Your task to perform on an android device: Clear the cart on newegg.com. Add apple airpods to the cart on newegg.com Image 0: 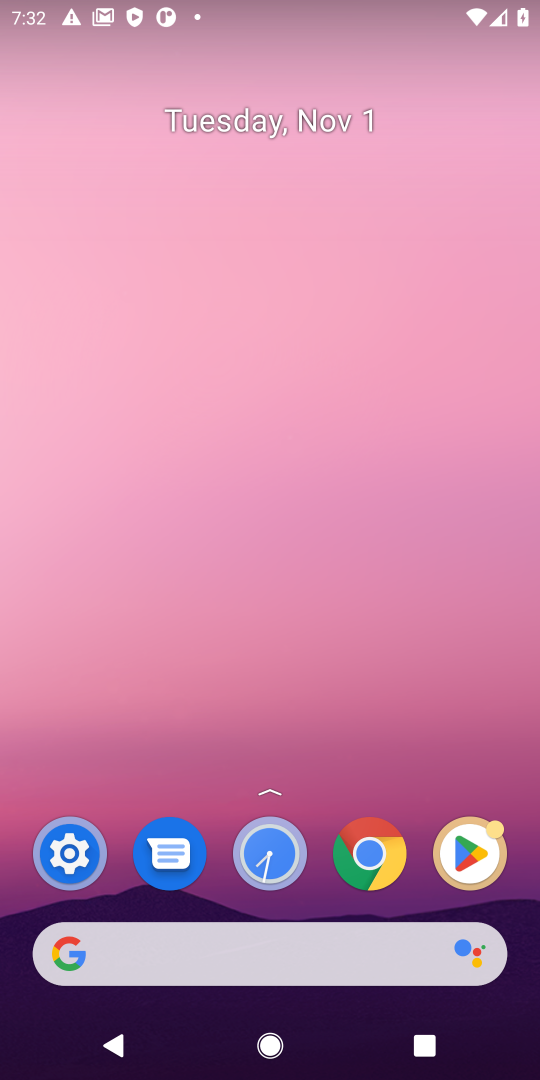
Step 0: click (338, 938)
Your task to perform on an android device: Clear the cart on newegg.com. Add apple airpods to the cart on newegg.com Image 1: 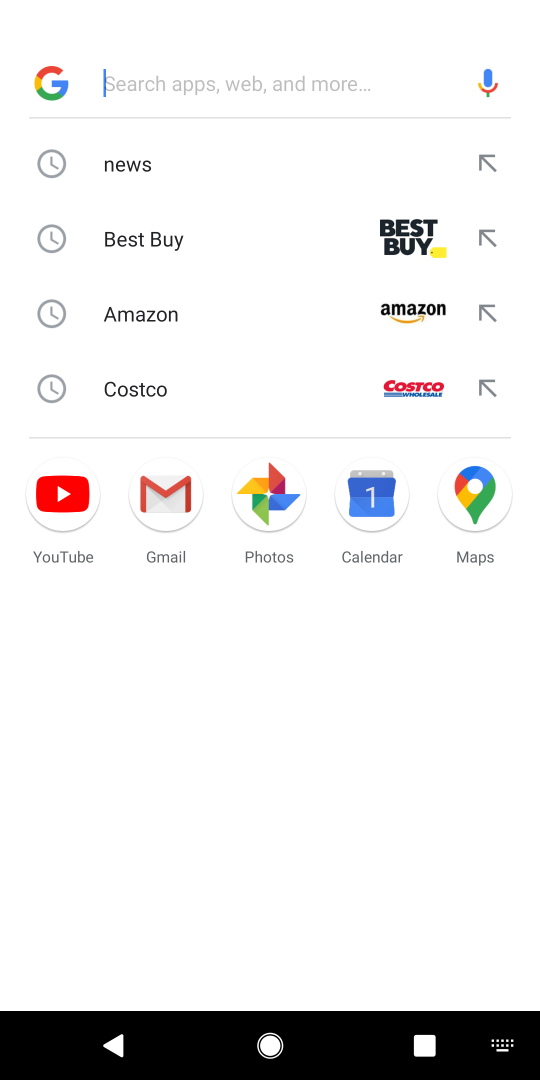
Step 1: type "newegg.com"
Your task to perform on an android device: Clear the cart on newegg.com. Add apple airpods to the cart on newegg.com Image 2: 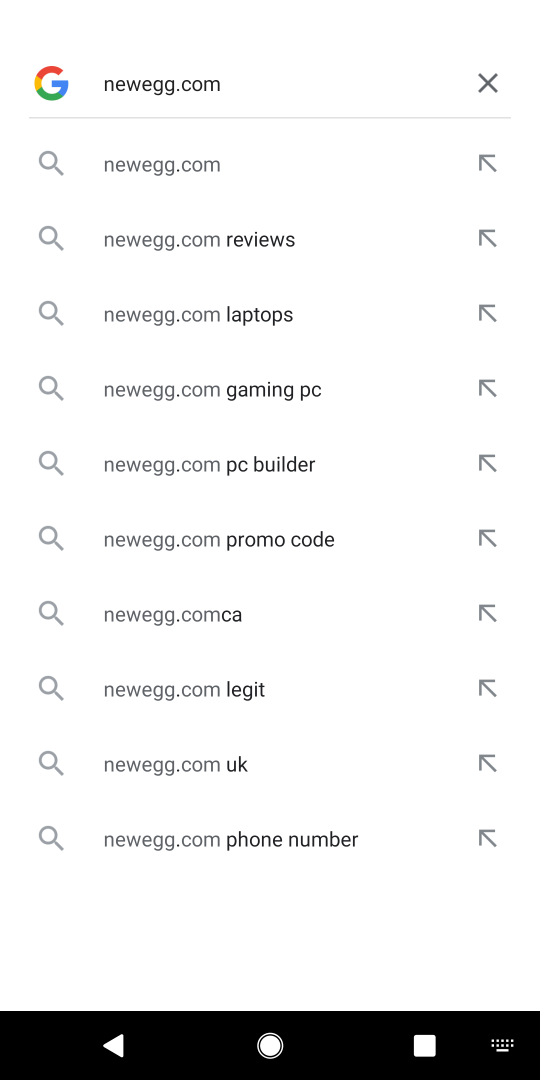
Step 2: click (254, 157)
Your task to perform on an android device: Clear the cart on newegg.com. Add apple airpods to the cart on newegg.com Image 3: 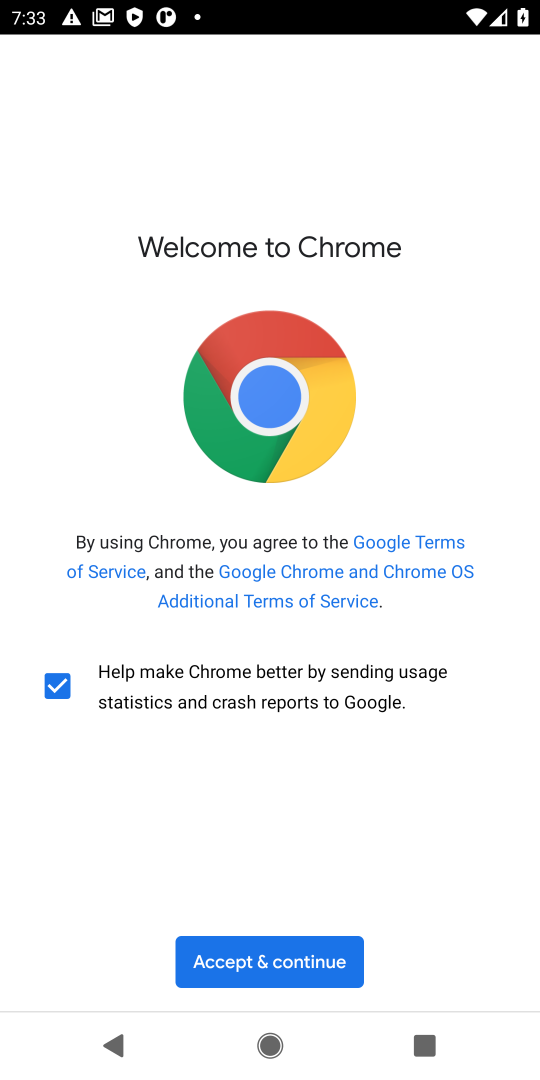
Step 3: click (310, 948)
Your task to perform on an android device: Clear the cart on newegg.com. Add apple airpods to the cart on newegg.com Image 4: 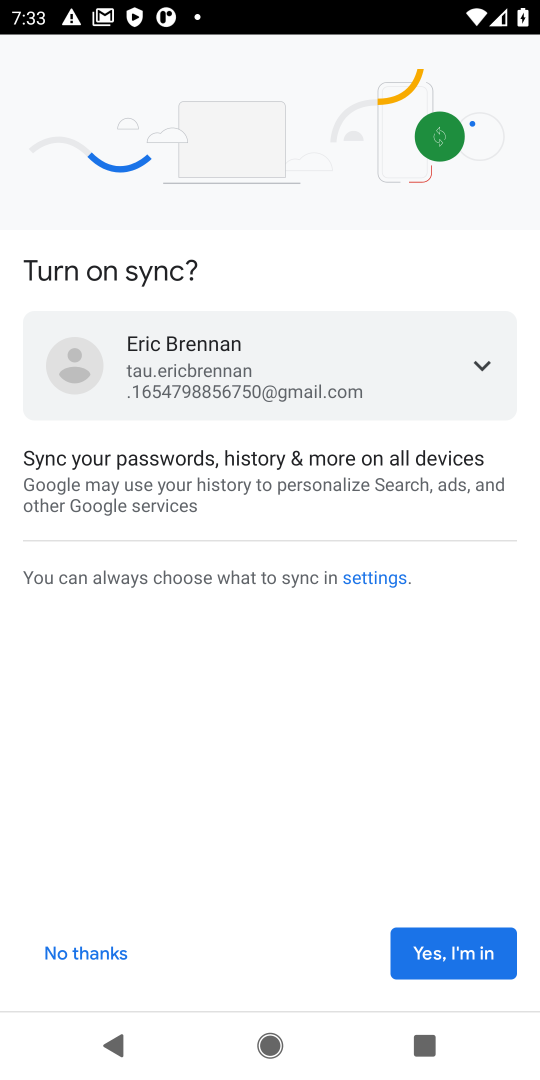
Step 4: click (482, 941)
Your task to perform on an android device: Clear the cart on newegg.com. Add apple airpods to the cart on newegg.com Image 5: 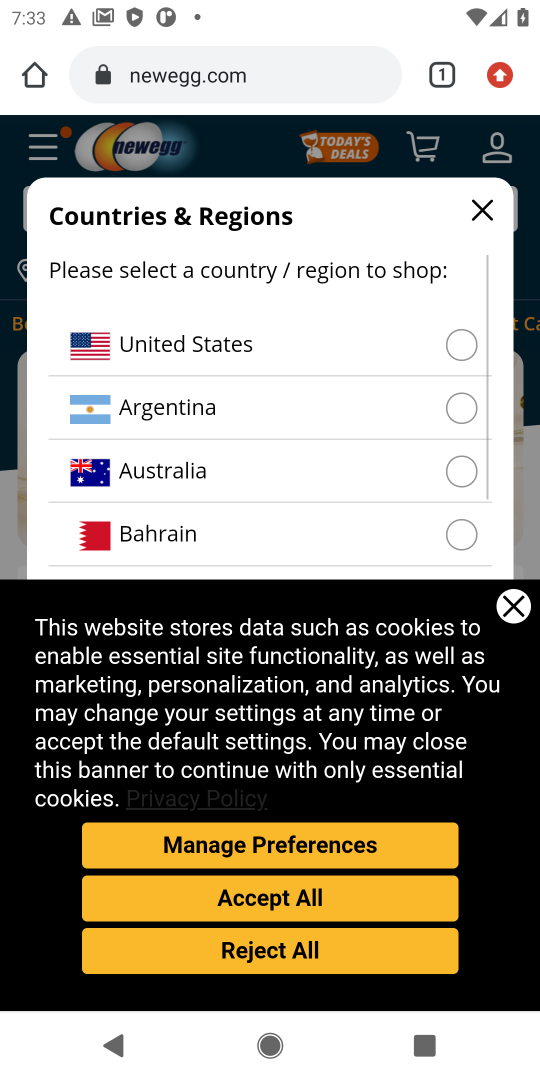
Step 5: click (480, 212)
Your task to perform on an android device: Clear the cart on newegg.com. Add apple airpods to the cart on newegg.com Image 6: 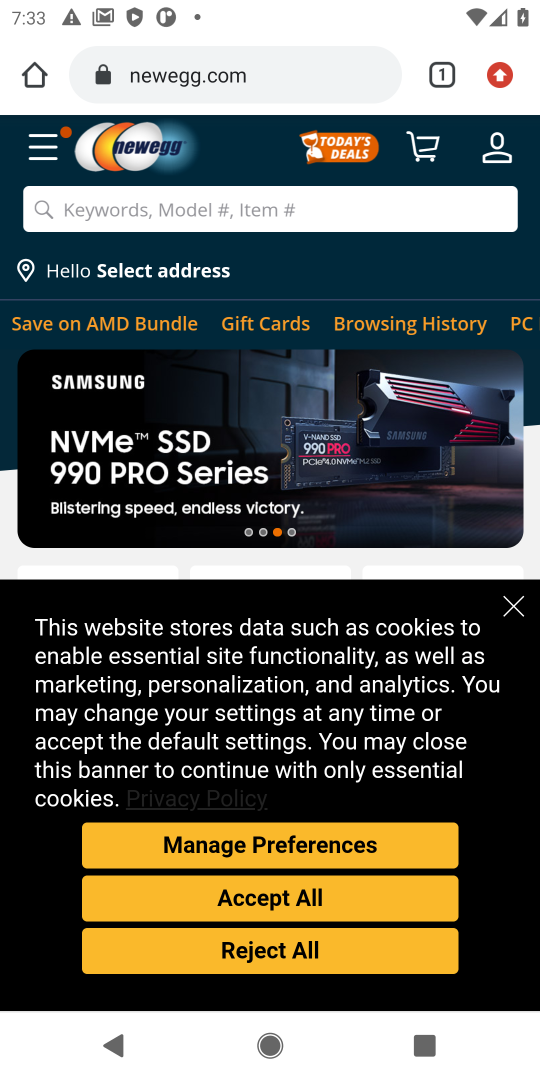
Step 6: click (429, 155)
Your task to perform on an android device: Clear the cart on newegg.com. Add apple airpods to the cart on newegg.com Image 7: 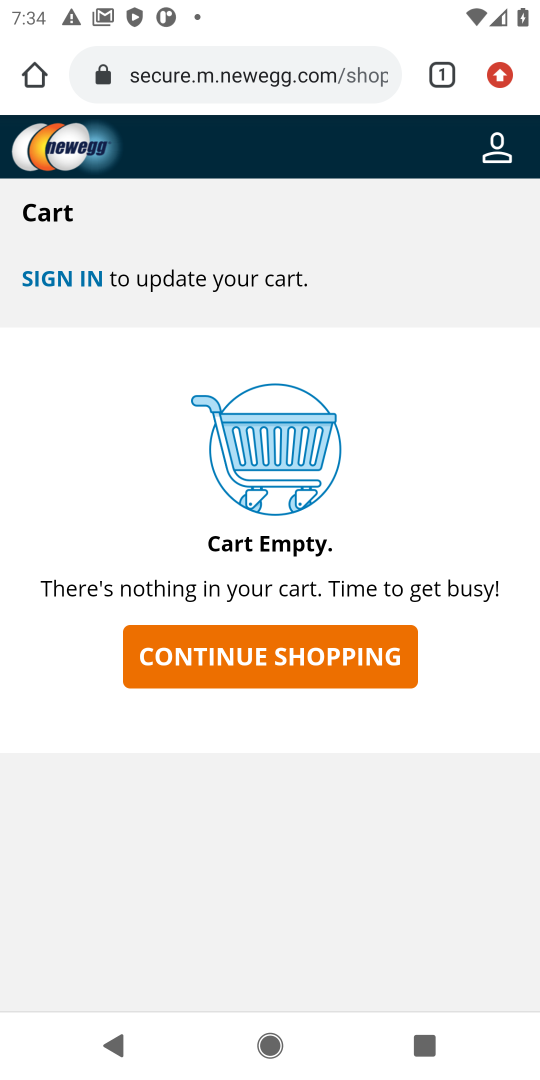
Step 7: click (306, 645)
Your task to perform on an android device: Clear the cart on newegg.com. Add apple airpods to the cart on newegg.com Image 8: 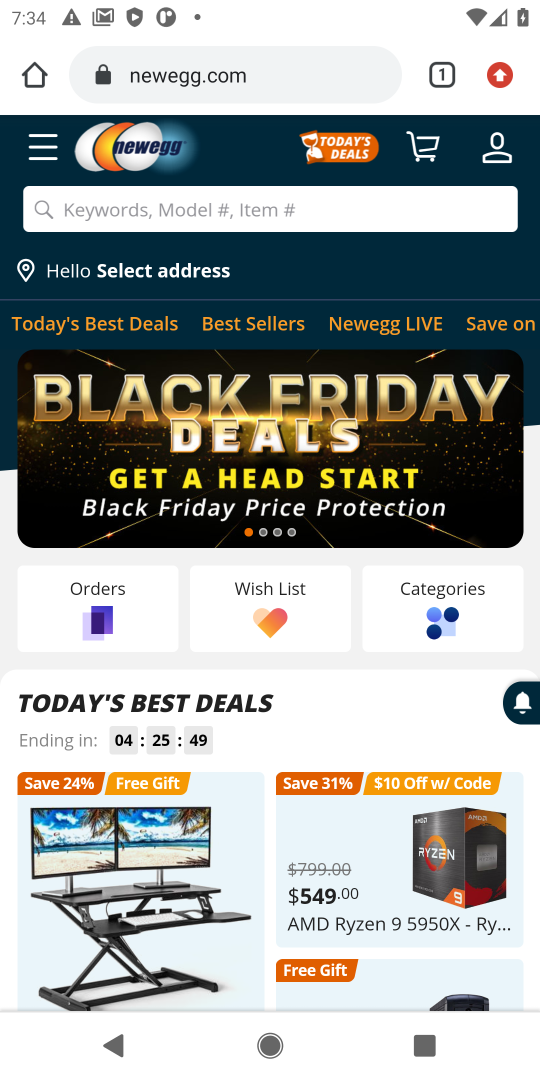
Step 8: click (307, 212)
Your task to perform on an android device: Clear the cart on newegg.com. Add apple airpods to the cart on newegg.com Image 9: 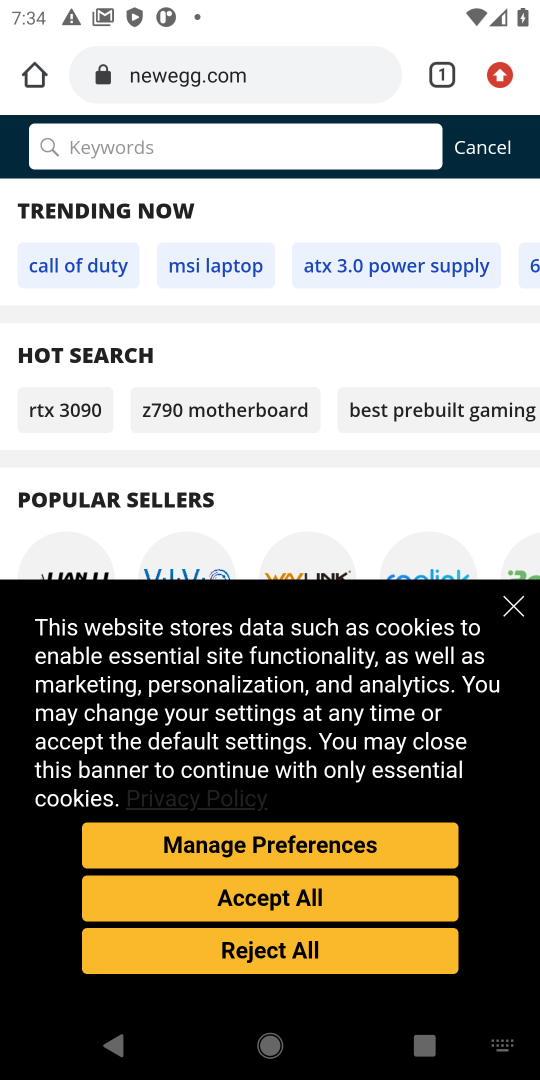
Step 9: type "apple airpods "
Your task to perform on an android device: Clear the cart on newegg.com. Add apple airpods to the cart on newegg.com Image 10: 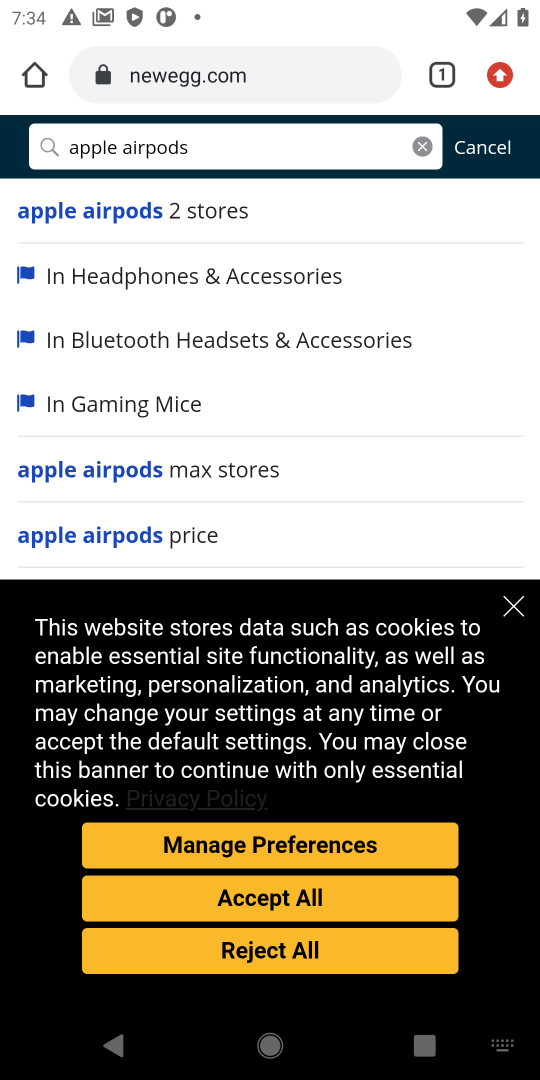
Step 10: click (516, 612)
Your task to perform on an android device: Clear the cart on newegg.com. Add apple airpods to the cart on newegg.com Image 11: 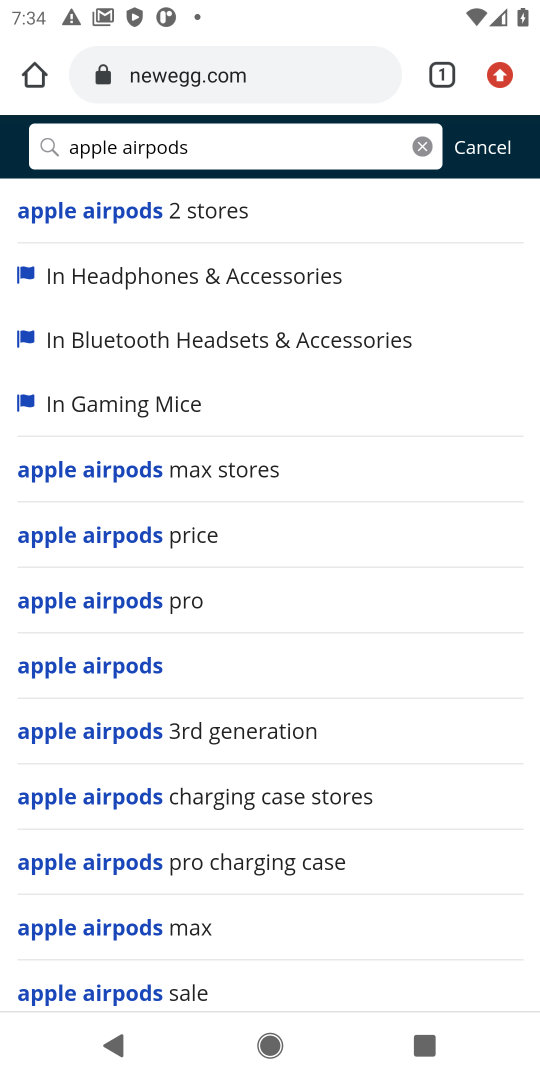
Step 11: click (185, 647)
Your task to perform on an android device: Clear the cart on newegg.com. Add apple airpods to the cart on newegg.com Image 12: 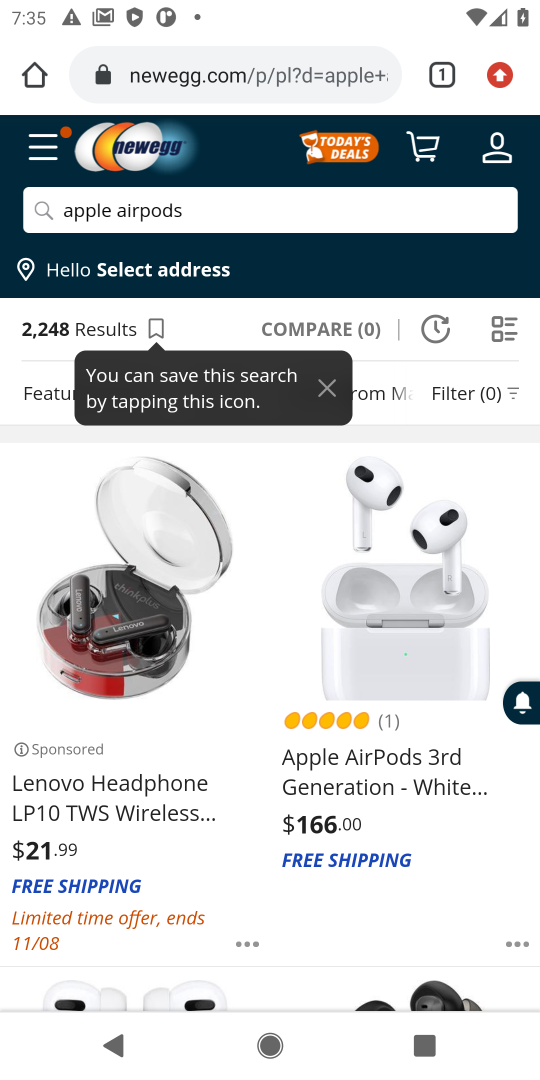
Step 12: click (381, 641)
Your task to perform on an android device: Clear the cart on newegg.com. Add apple airpods to the cart on newegg.com Image 13: 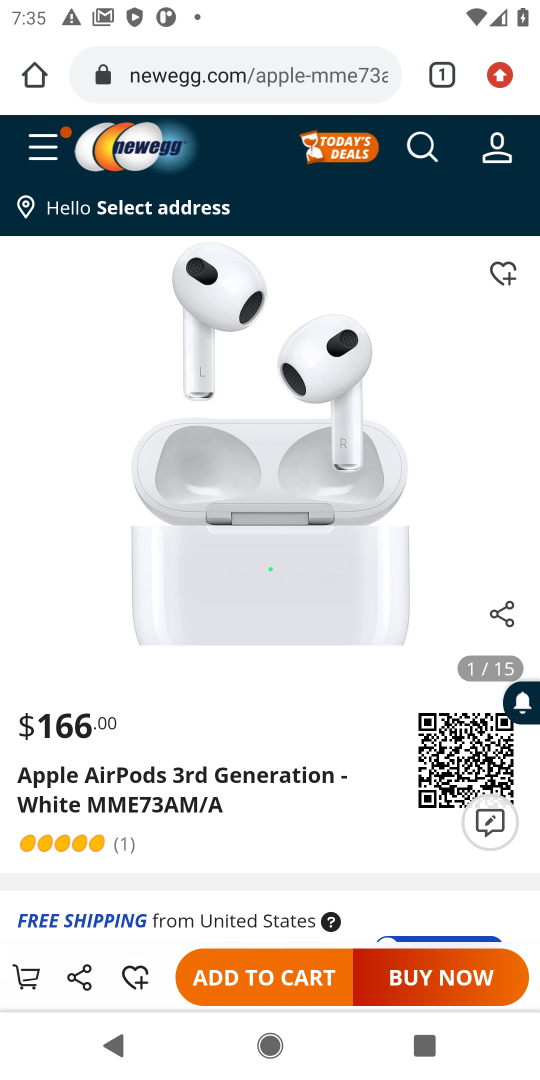
Step 13: click (304, 976)
Your task to perform on an android device: Clear the cart on newegg.com. Add apple airpods to the cart on newegg.com Image 14: 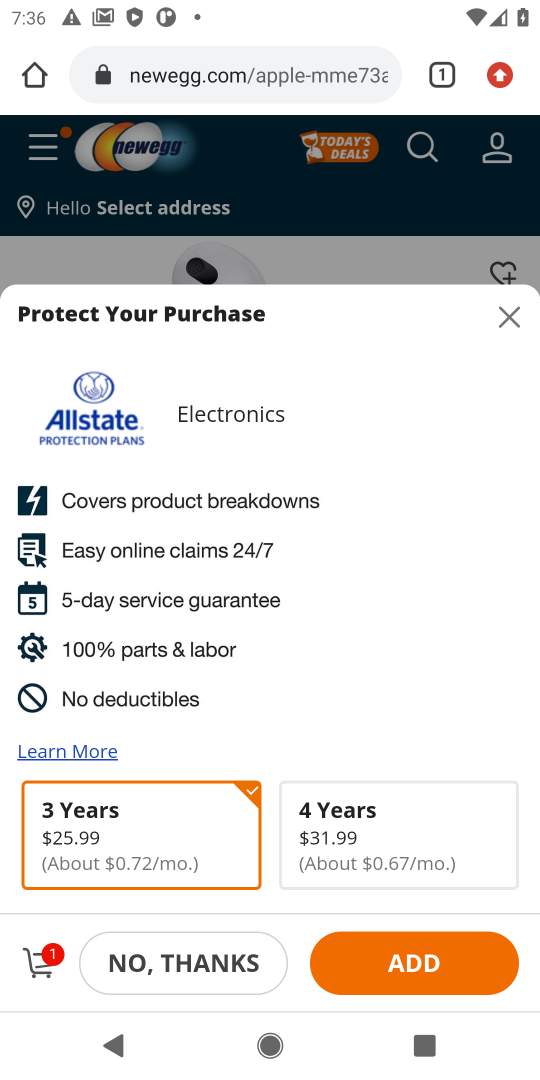
Step 14: click (245, 961)
Your task to perform on an android device: Clear the cart on newegg.com. Add apple airpods to the cart on newegg.com Image 15: 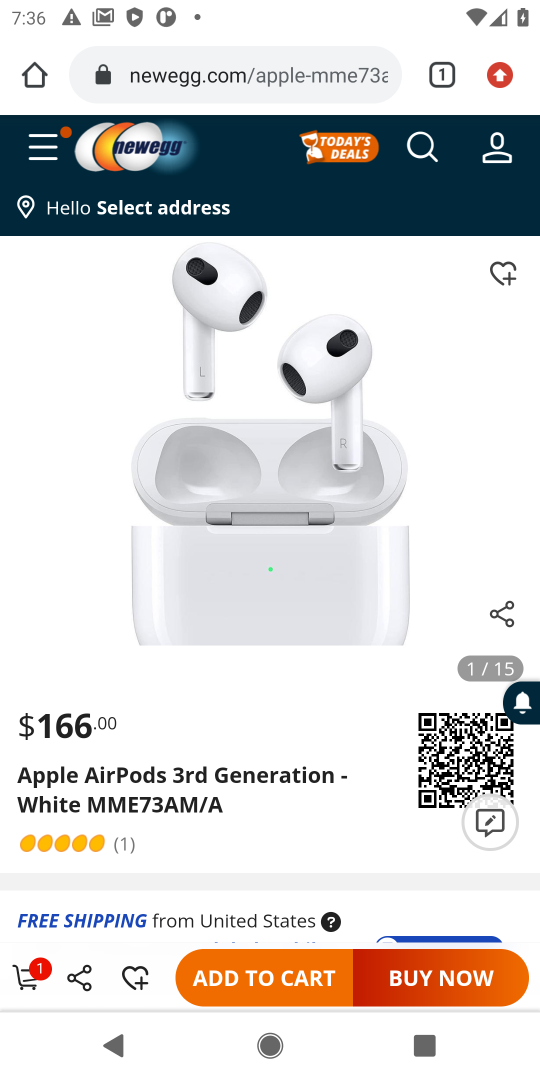
Step 15: task complete